Your task to perform on an android device: Go to notification settings Image 0: 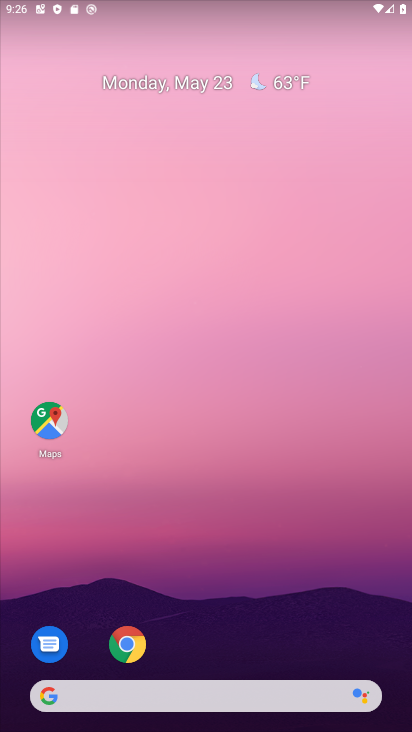
Step 0: drag from (202, 650) to (237, 244)
Your task to perform on an android device: Go to notification settings Image 1: 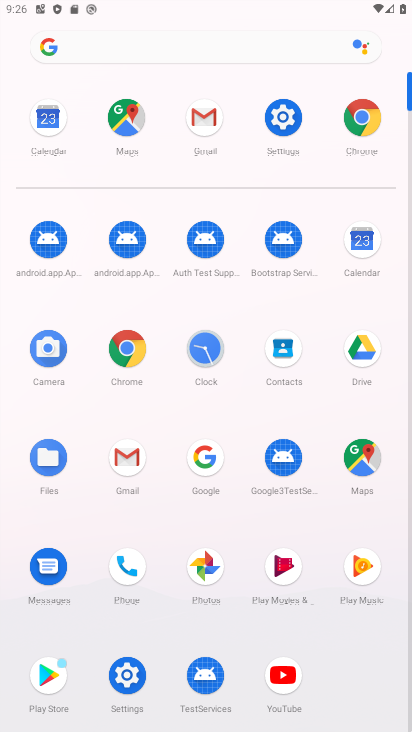
Step 1: click (290, 127)
Your task to perform on an android device: Go to notification settings Image 2: 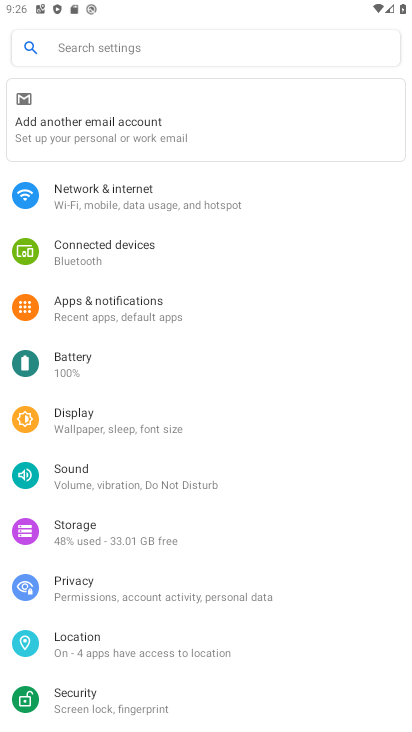
Step 2: click (142, 310)
Your task to perform on an android device: Go to notification settings Image 3: 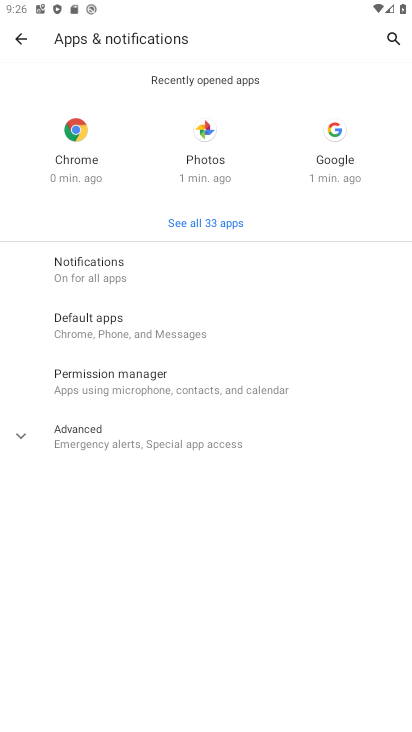
Step 3: click (131, 266)
Your task to perform on an android device: Go to notification settings Image 4: 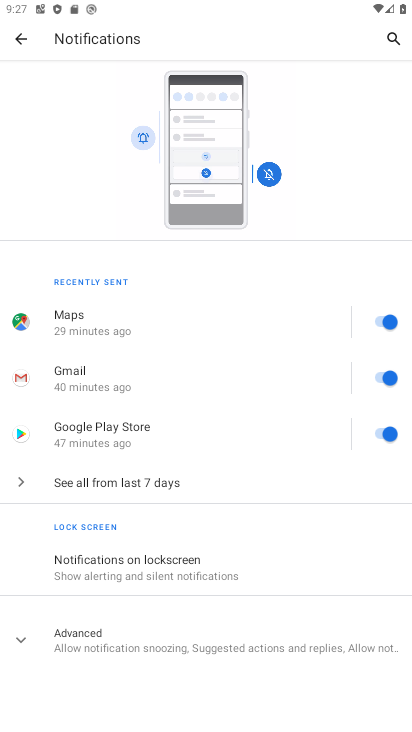
Step 4: click (44, 634)
Your task to perform on an android device: Go to notification settings Image 5: 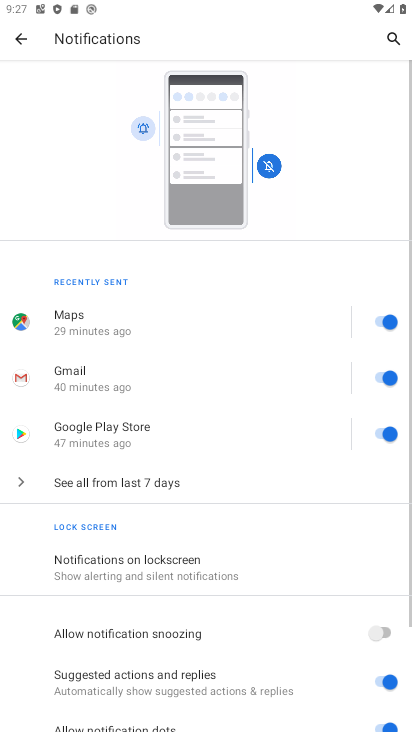
Step 5: task complete